Your task to perform on an android device: When is my next meeting? Image 0: 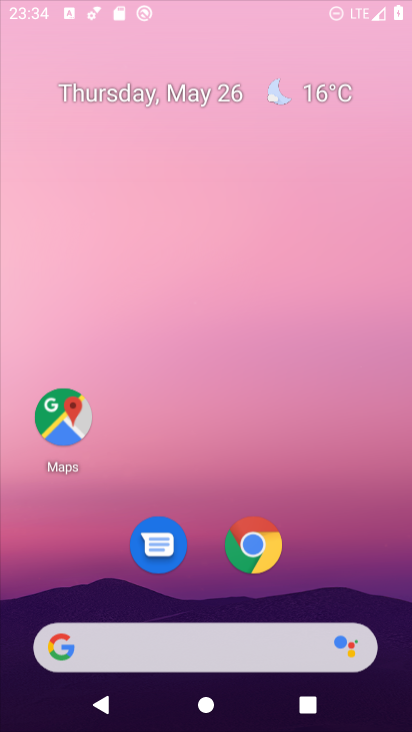
Step 0: press home button
Your task to perform on an android device: When is my next meeting? Image 1: 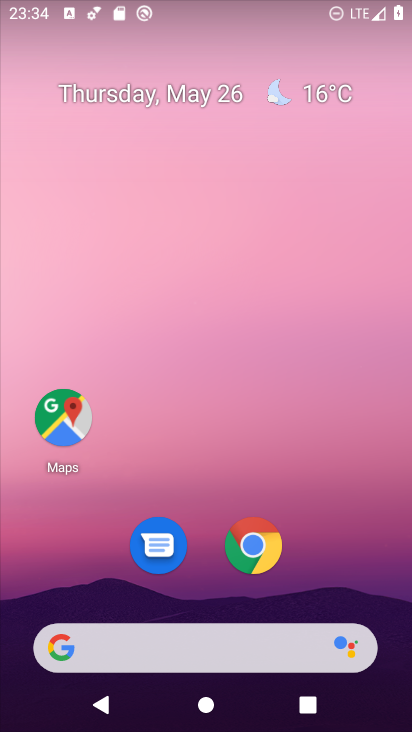
Step 1: drag from (276, 606) to (225, 199)
Your task to perform on an android device: When is my next meeting? Image 2: 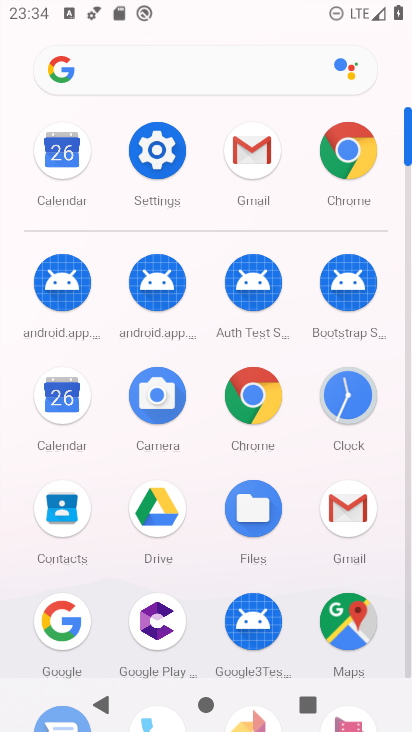
Step 2: click (51, 404)
Your task to perform on an android device: When is my next meeting? Image 3: 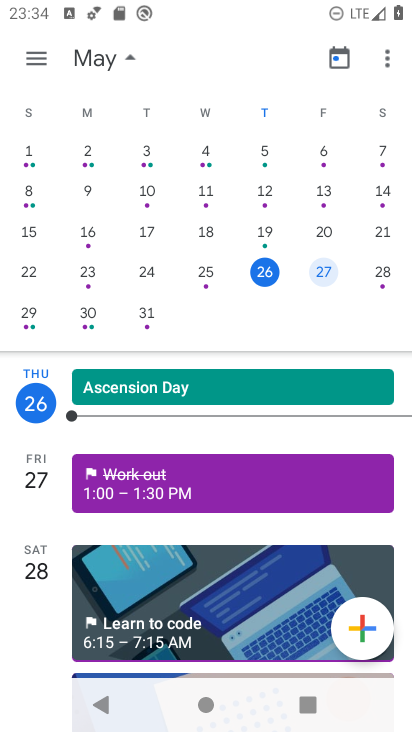
Step 3: click (48, 62)
Your task to perform on an android device: When is my next meeting? Image 4: 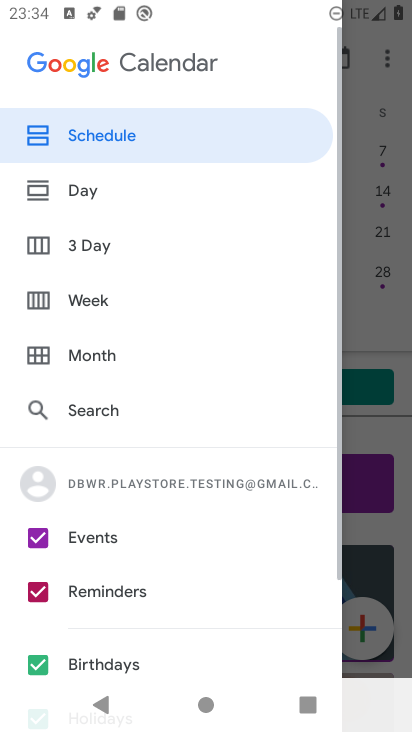
Step 4: click (77, 143)
Your task to perform on an android device: When is my next meeting? Image 5: 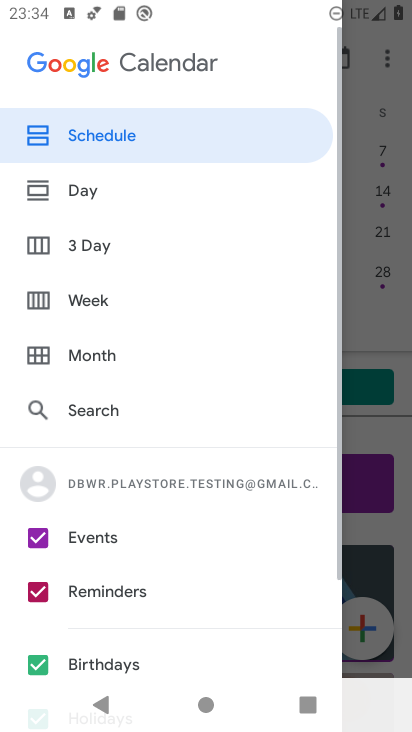
Step 5: click (139, 133)
Your task to perform on an android device: When is my next meeting? Image 6: 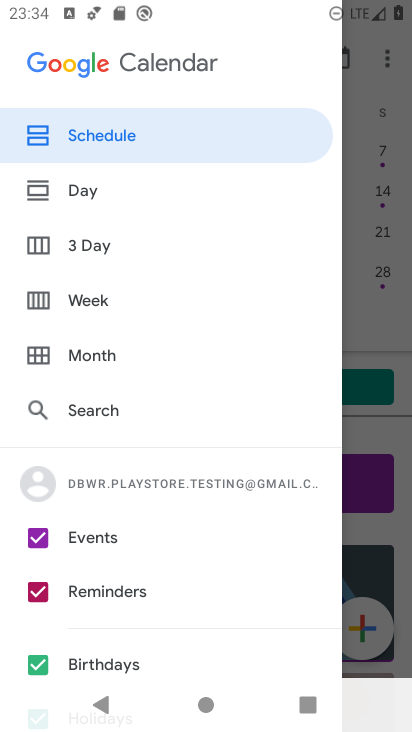
Step 6: click (377, 299)
Your task to perform on an android device: When is my next meeting? Image 7: 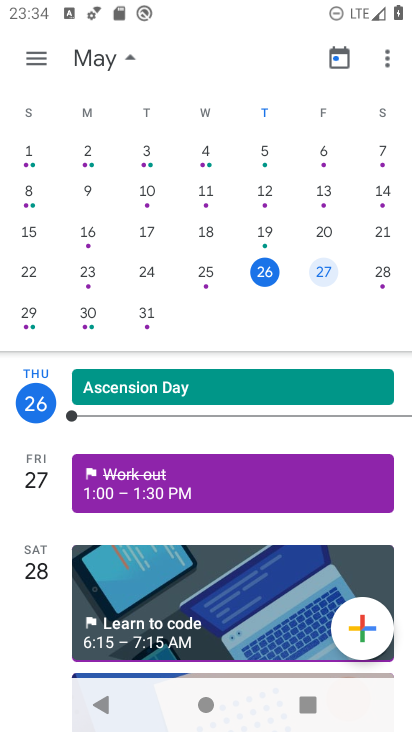
Step 7: task complete